Your task to perform on an android device: What's on my calendar today? Image 0: 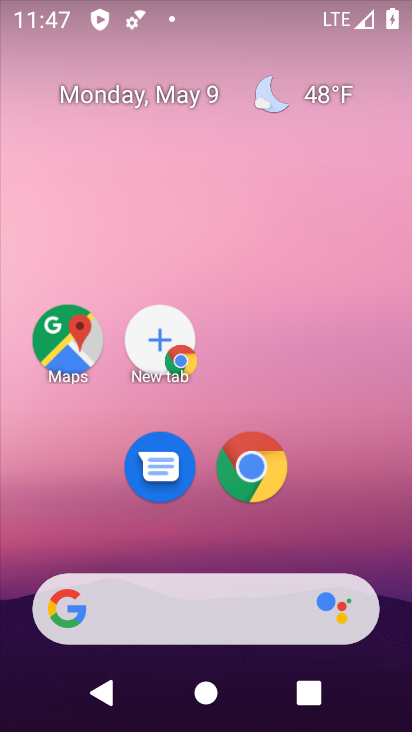
Step 0: drag from (360, 573) to (215, 195)
Your task to perform on an android device: What's on my calendar today? Image 1: 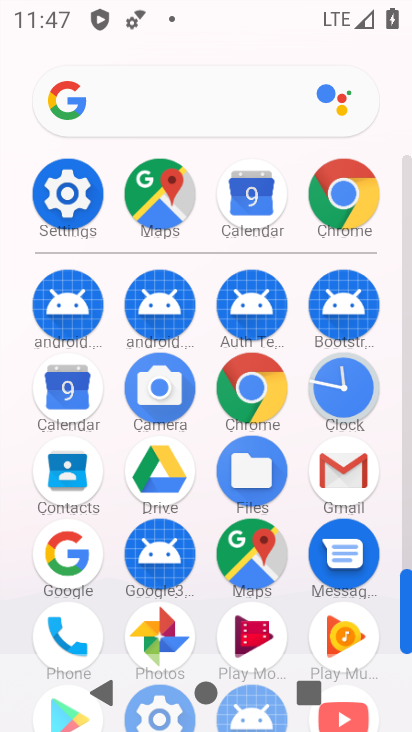
Step 1: click (62, 391)
Your task to perform on an android device: What's on my calendar today? Image 2: 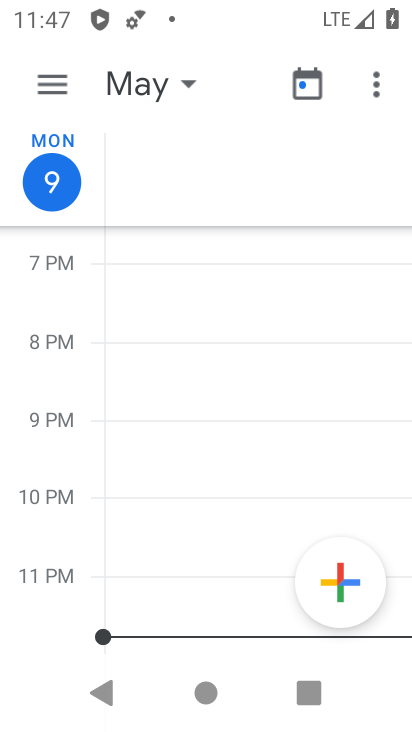
Step 2: click (186, 80)
Your task to perform on an android device: What's on my calendar today? Image 3: 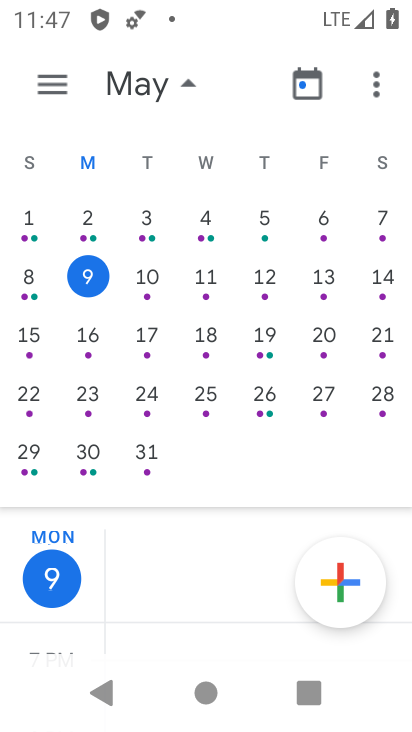
Step 3: drag from (180, 511) to (157, 285)
Your task to perform on an android device: What's on my calendar today? Image 4: 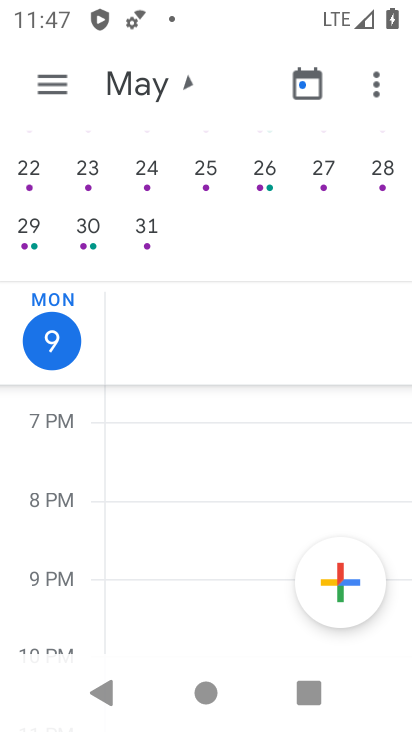
Step 4: drag from (189, 462) to (188, 168)
Your task to perform on an android device: What's on my calendar today? Image 5: 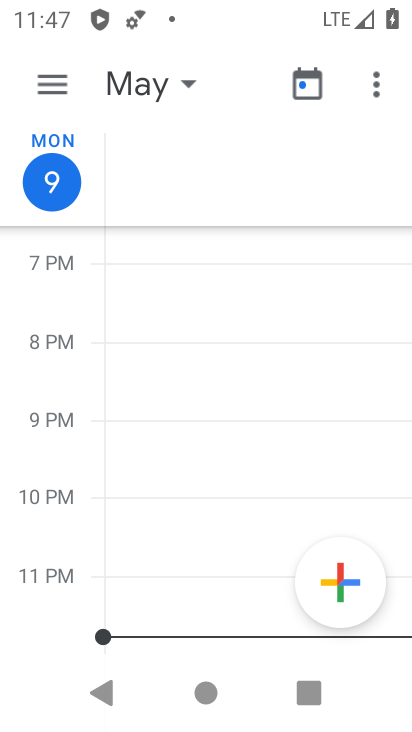
Step 5: click (118, 492)
Your task to perform on an android device: What's on my calendar today? Image 6: 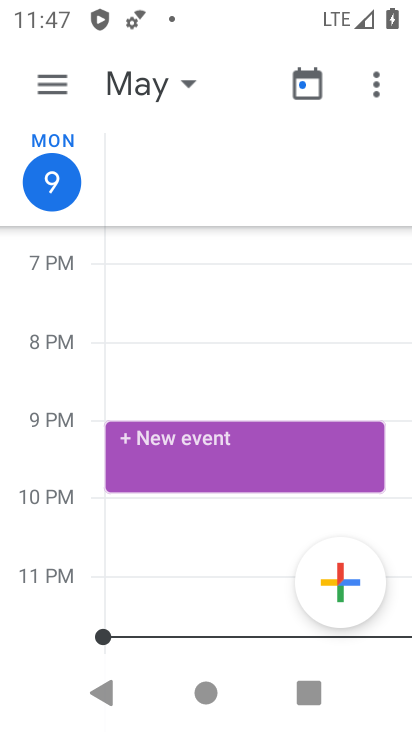
Step 6: click (59, 485)
Your task to perform on an android device: What's on my calendar today? Image 7: 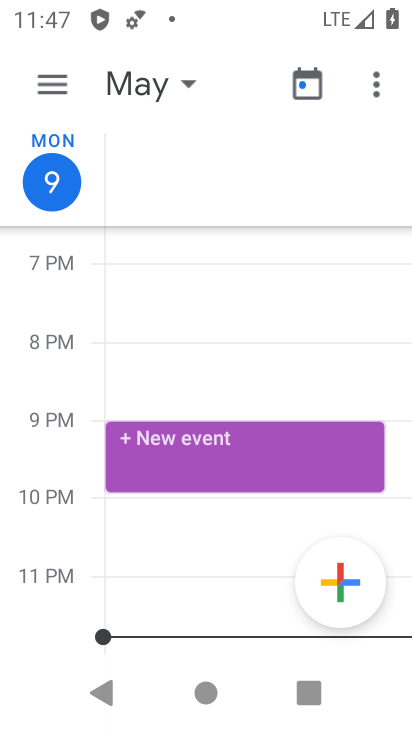
Step 7: click (52, 474)
Your task to perform on an android device: What's on my calendar today? Image 8: 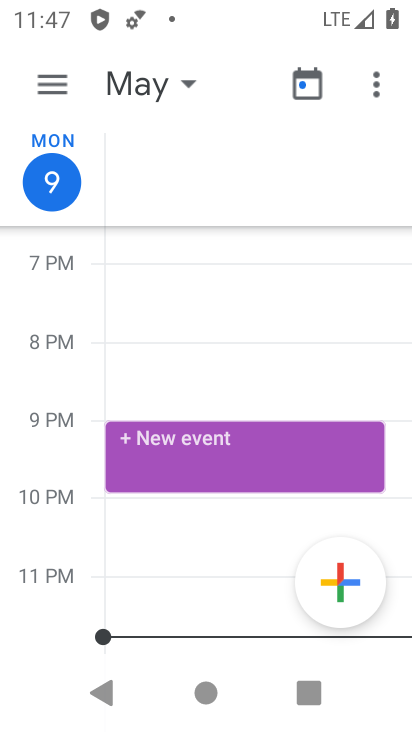
Step 8: click (237, 435)
Your task to perform on an android device: What's on my calendar today? Image 9: 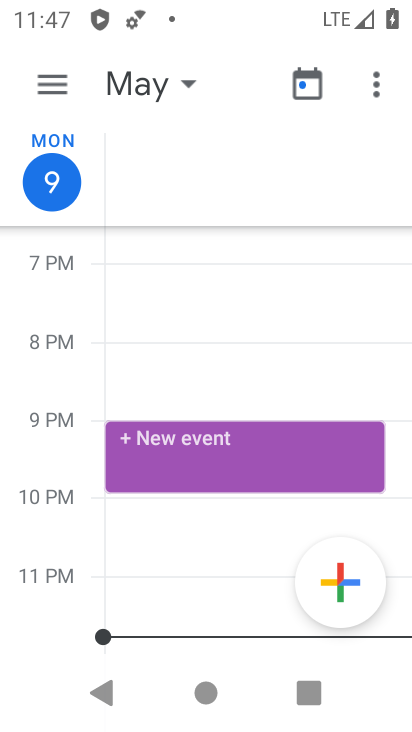
Step 9: click (235, 456)
Your task to perform on an android device: What's on my calendar today? Image 10: 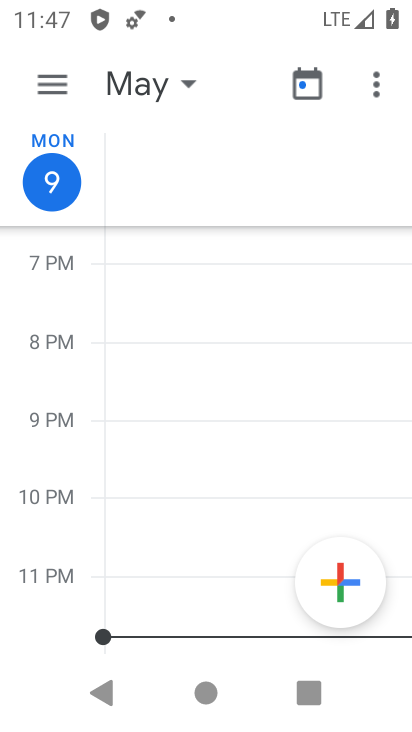
Step 10: click (232, 457)
Your task to perform on an android device: What's on my calendar today? Image 11: 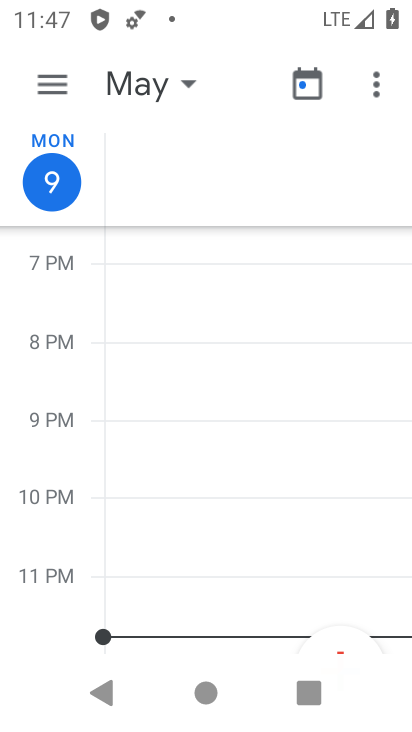
Step 11: click (232, 457)
Your task to perform on an android device: What's on my calendar today? Image 12: 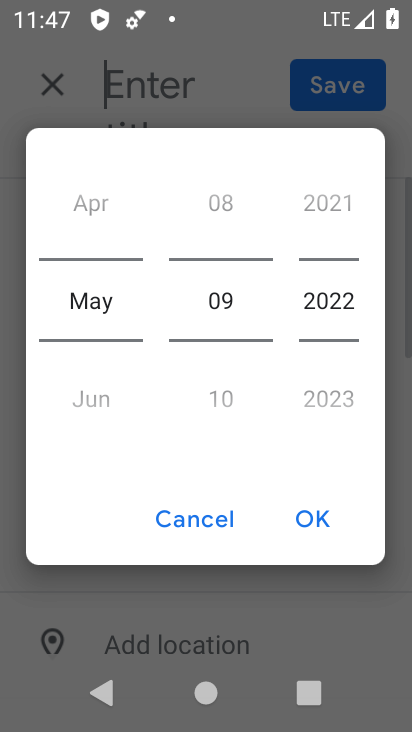
Step 12: task complete